Your task to perform on an android device: turn notification dots on Image 0: 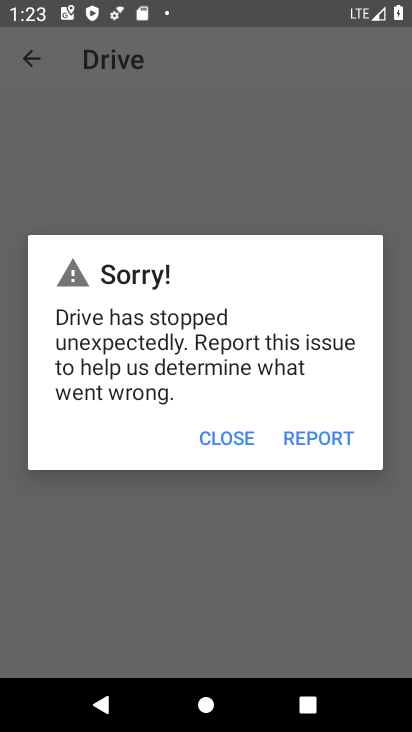
Step 0: press home button
Your task to perform on an android device: turn notification dots on Image 1: 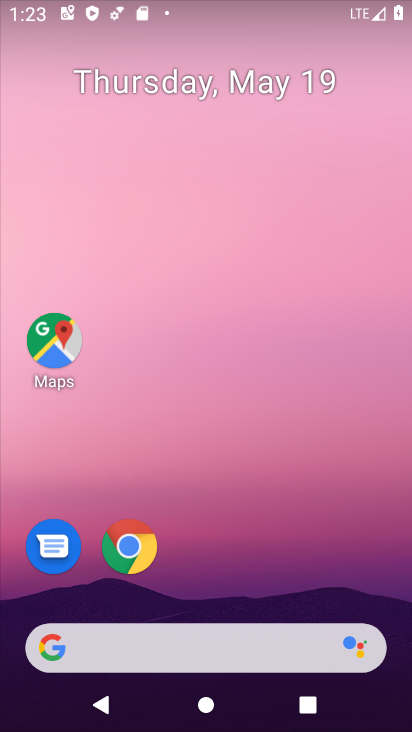
Step 1: drag from (256, 596) to (389, 91)
Your task to perform on an android device: turn notification dots on Image 2: 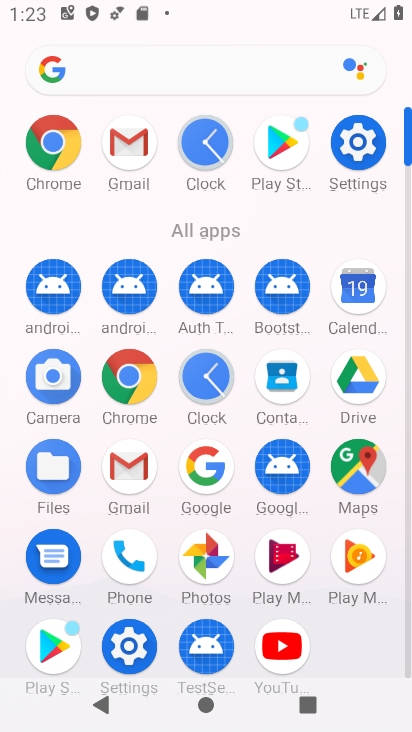
Step 2: click (349, 165)
Your task to perform on an android device: turn notification dots on Image 3: 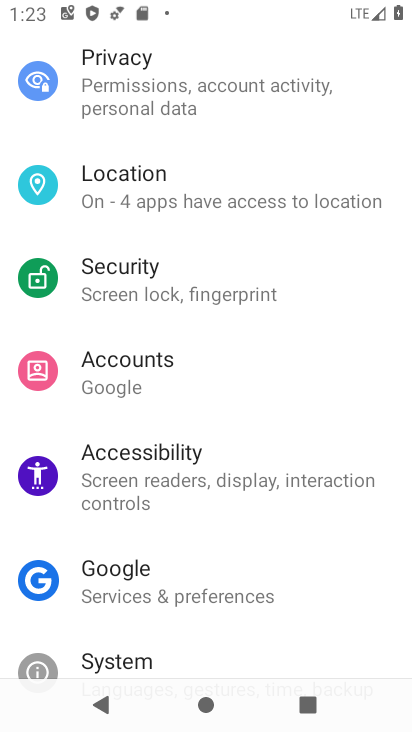
Step 3: drag from (165, 193) to (174, 579)
Your task to perform on an android device: turn notification dots on Image 4: 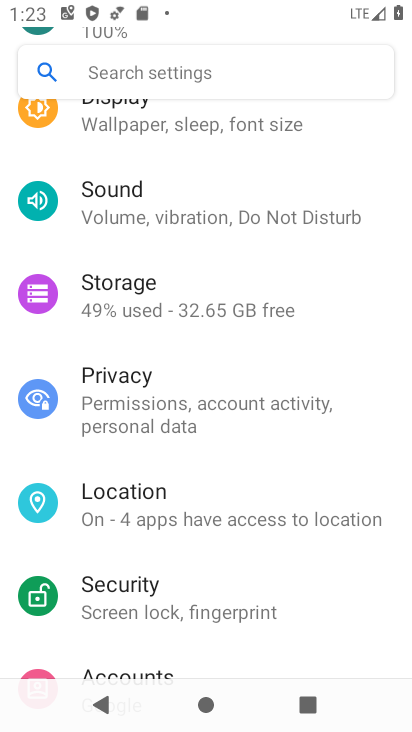
Step 4: drag from (157, 196) to (194, 531)
Your task to perform on an android device: turn notification dots on Image 5: 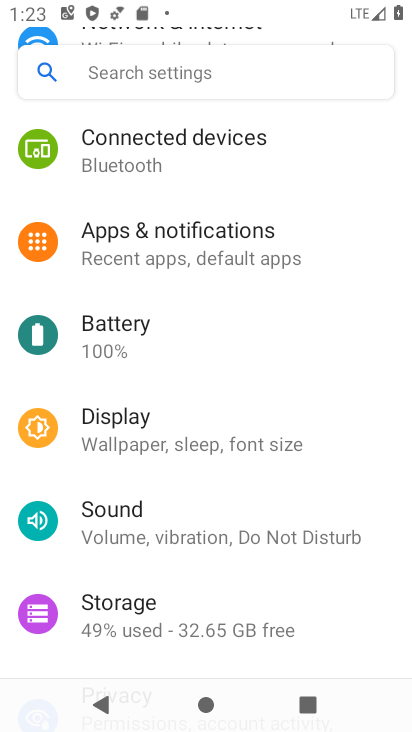
Step 5: click (162, 258)
Your task to perform on an android device: turn notification dots on Image 6: 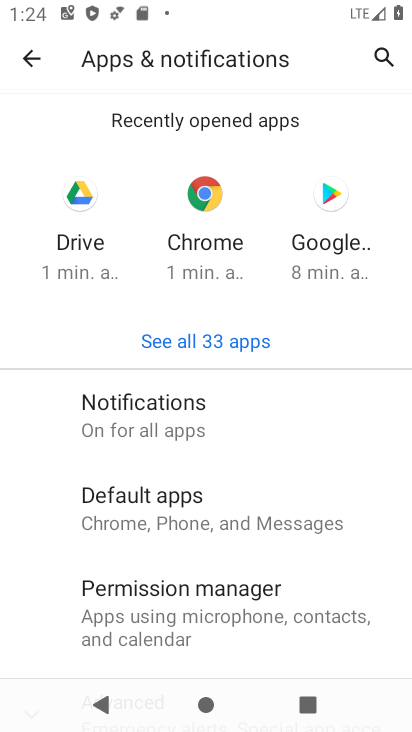
Step 6: drag from (89, 599) to (212, 41)
Your task to perform on an android device: turn notification dots on Image 7: 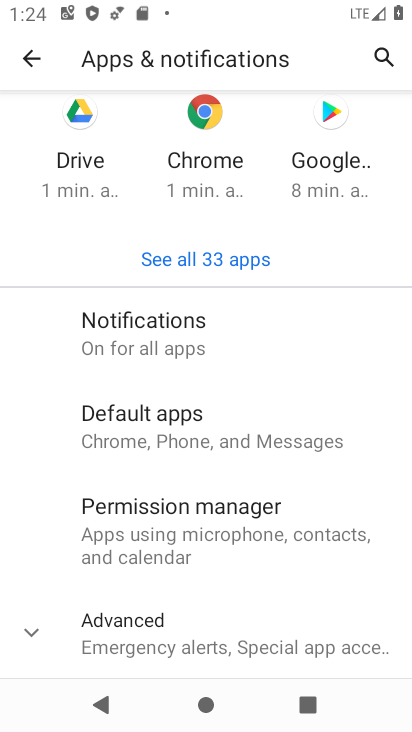
Step 7: click (158, 340)
Your task to perform on an android device: turn notification dots on Image 8: 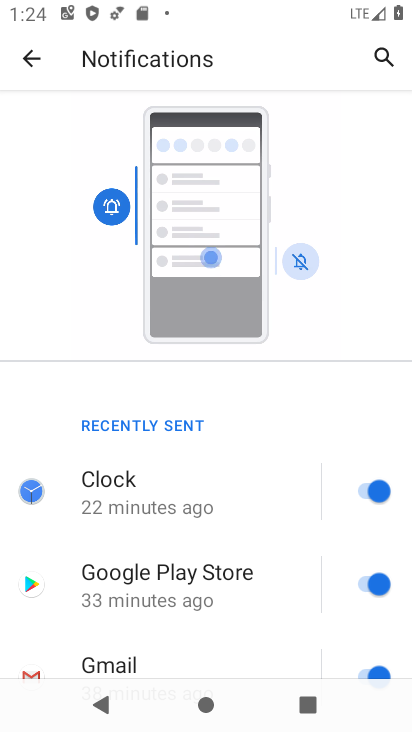
Step 8: drag from (108, 627) to (178, 39)
Your task to perform on an android device: turn notification dots on Image 9: 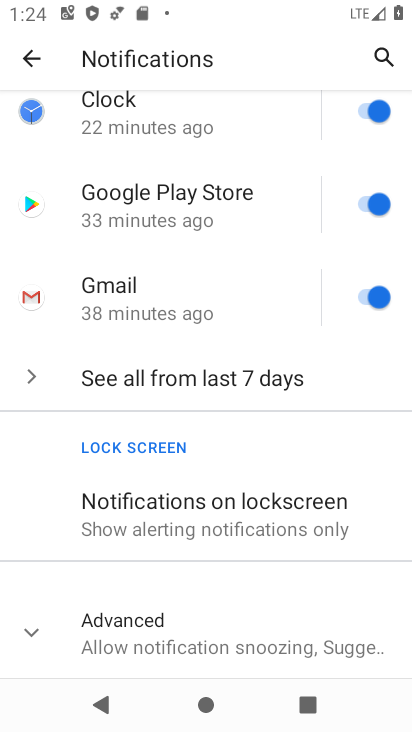
Step 9: click (140, 628)
Your task to perform on an android device: turn notification dots on Image 10: 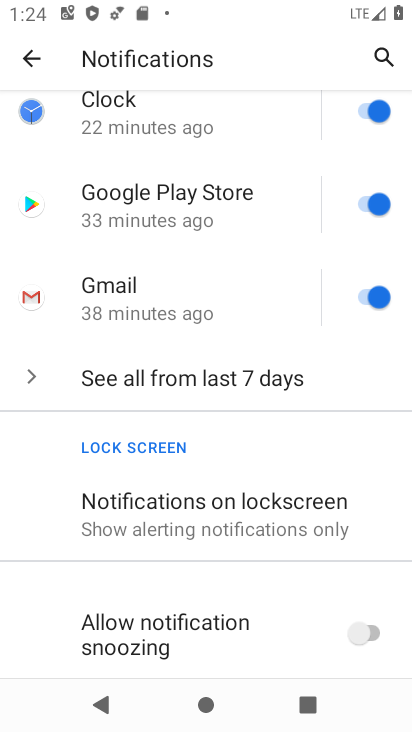
Step 10: task complete